Your task to perform on an android device: toggle wifi Image 0: 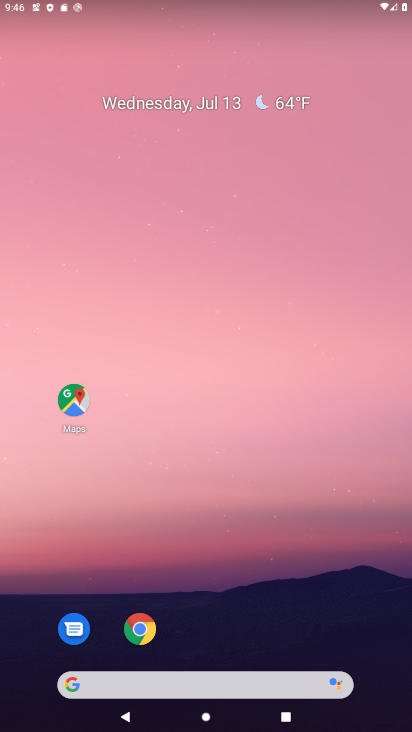
Step 0: drag from (296, 661) to (196, 201)
Your task to perform on an android device: toggle wifi Image 1: 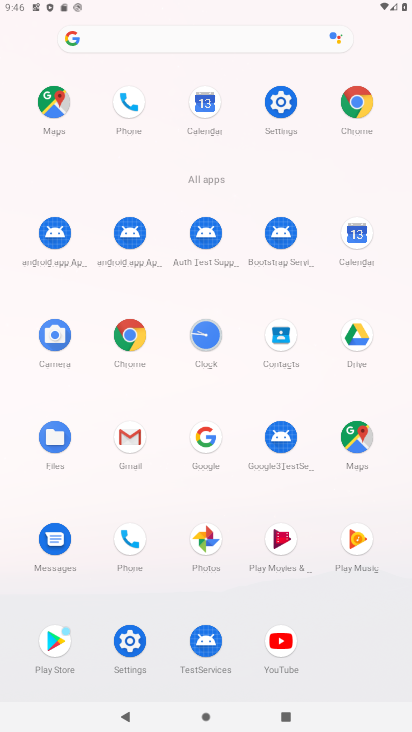
Step 1: click (274, 100)
Your task to perform on an android device: toggle wifi Image 2: 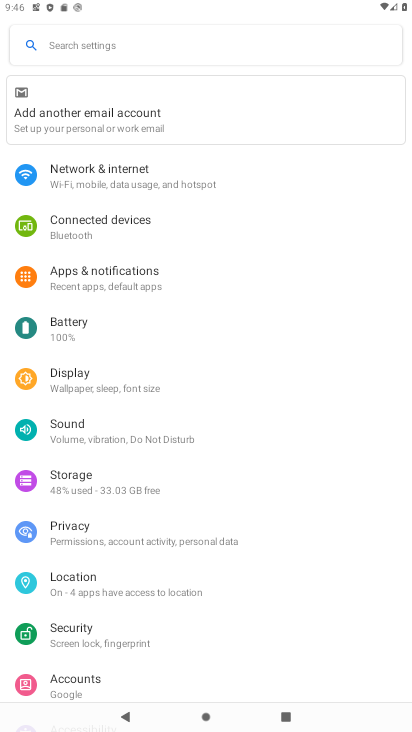
Step 2: click (142, 177)
Your task to perform on an android device: toggle wifi Image 3: 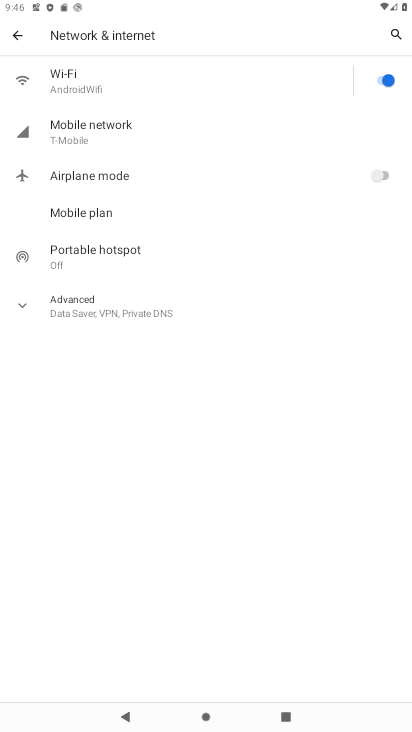
Step 3: click (206, 57)
Your task to perform on an android device: toggle wifi Image 4: 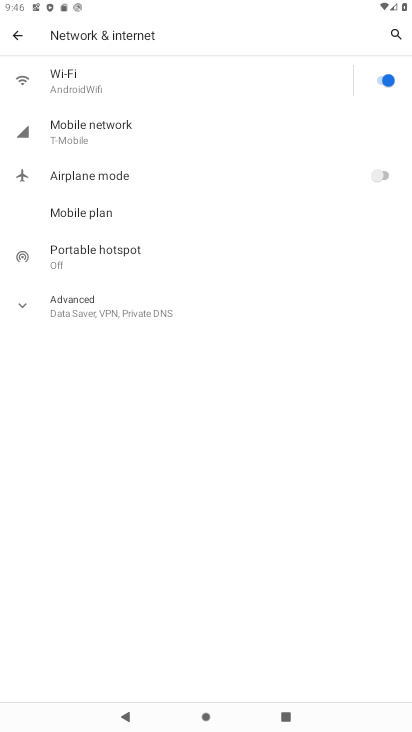
Step 4: click (385, 91)
Your task to perform on an android device: toggle wifi Image 5: 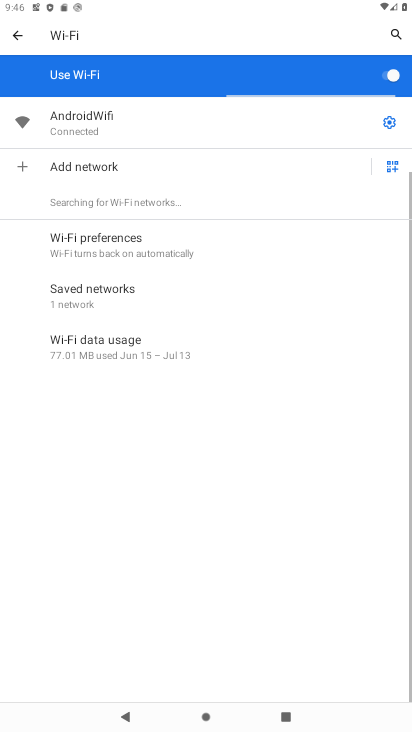
Step 5: click (385, 74)
Your task to perform on an android device: toggle wifi Image 6: 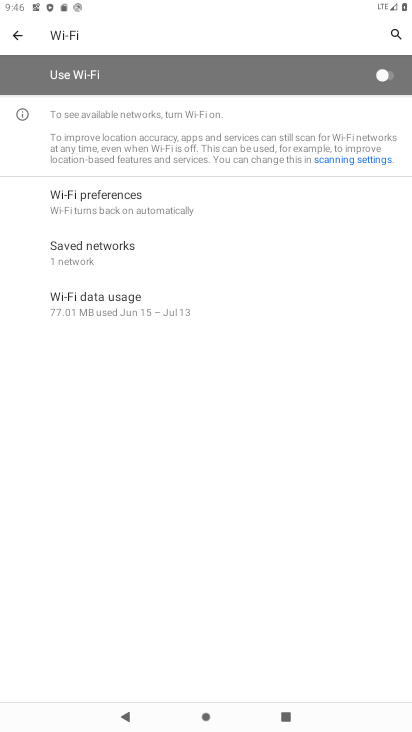
Step 6: task complete